Your task to perform on an android device: see sites visited before in the chrome app Image 0: 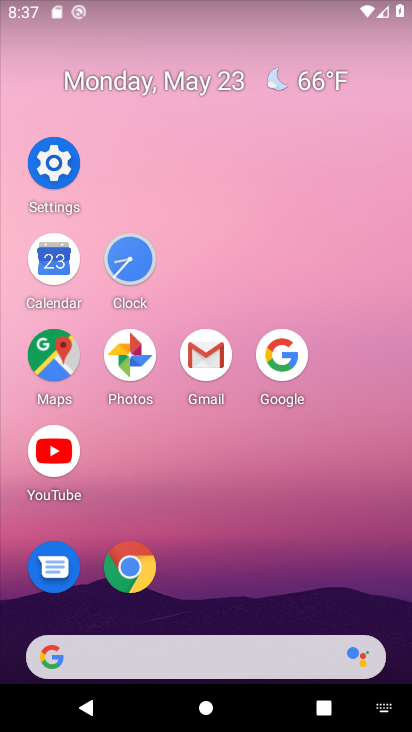
Step 0: click (135, 558)
Your task to perform on an android device: see sites visited before in the chrome app Image 1: 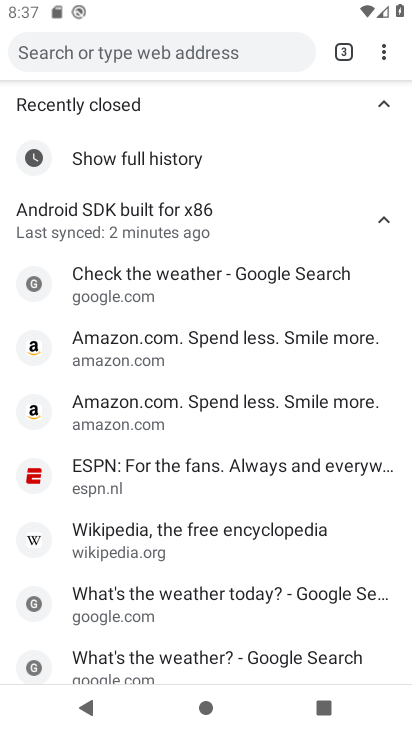
Step 1: click (376, 50)
Your task to perform on an android device: see sites visited before in the chrome app Image 2: 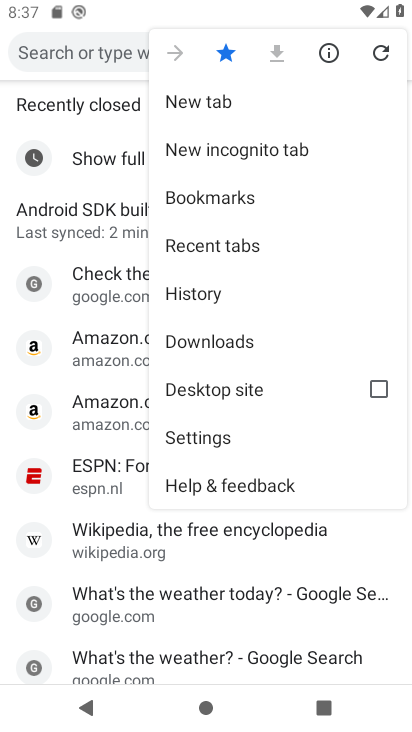
Step 2: click (229, 238)
Your task to perform on an android device: see sites visited before in the chrome app Image 3: 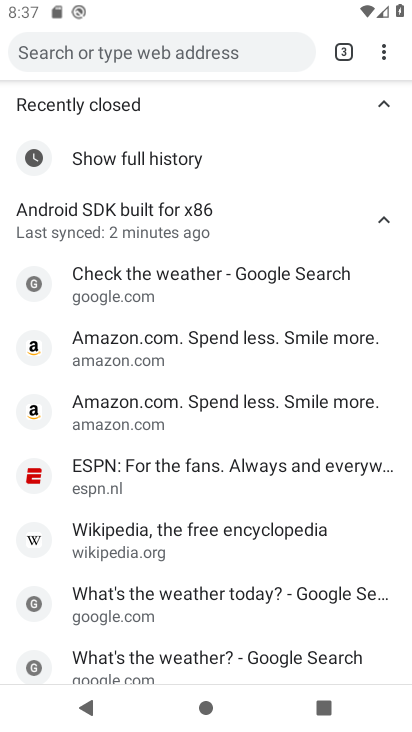
Step 3: task complete